Your task to perform on an android device: Open CNN.com Image 0: 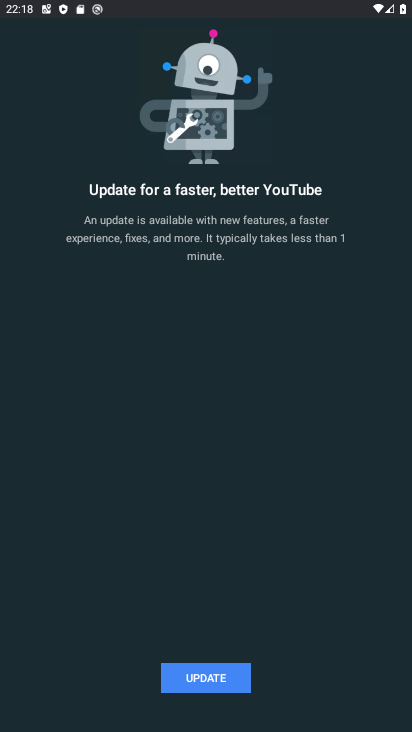
Step 0: press home button
Your task to perform on an android device: Open CNN.com Image 1: 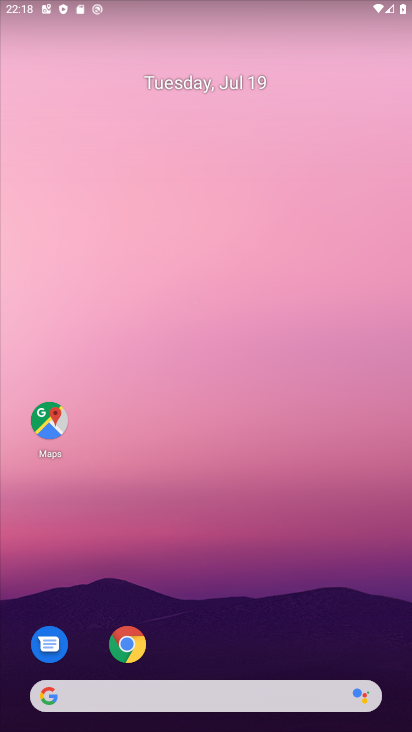
Step 1: click (126, 646)
Your task to perform on an android device: Open CNN.com Image 2: 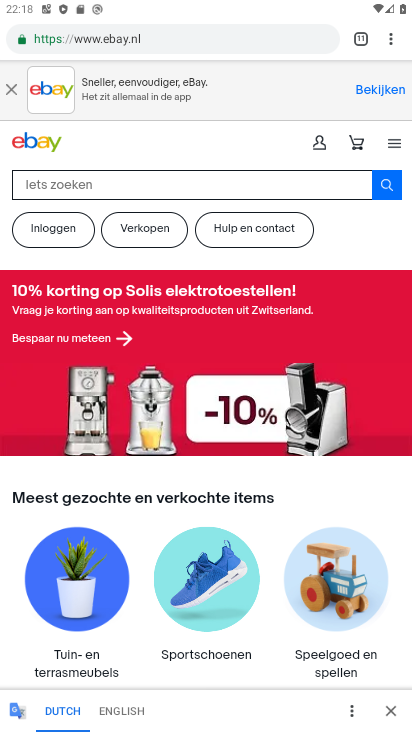
Step 2: click (392, 40)
Your task to perform on an android device: Open CNN.com Image 3: 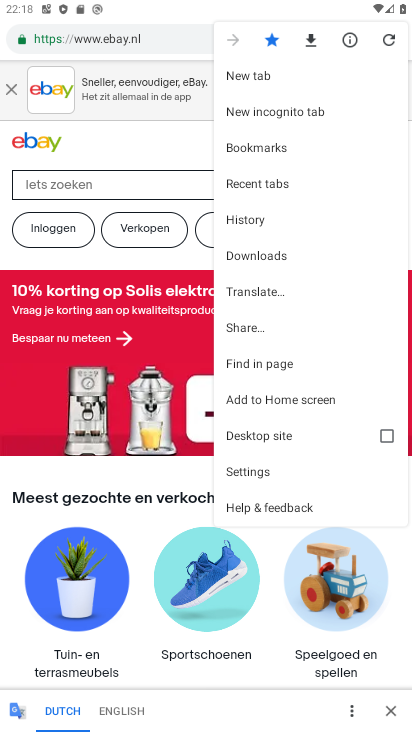
Step 3: click (241, 75)
Your task to perform on an android device: Open CNN.com Image 4: 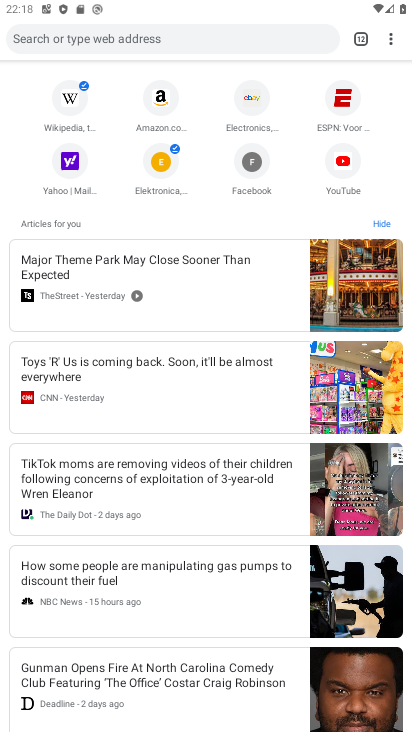
Step 4: click (185, 41)
Your task to perform on an android device: Open CNN.com Image 5: 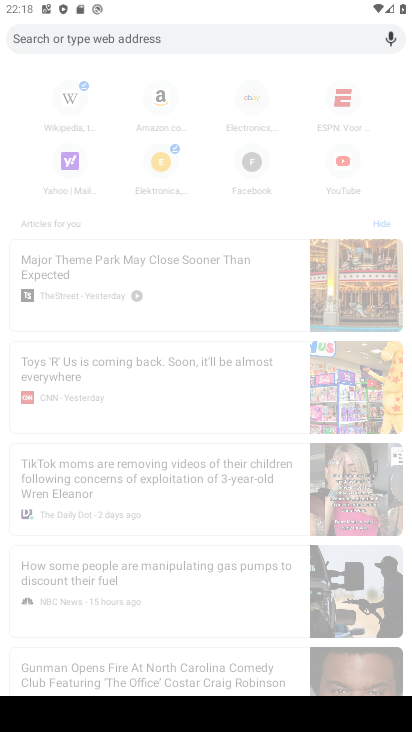
Step 5: type "CNN.com"
Your task to perform on an android device: Open CNN.com Image 6: 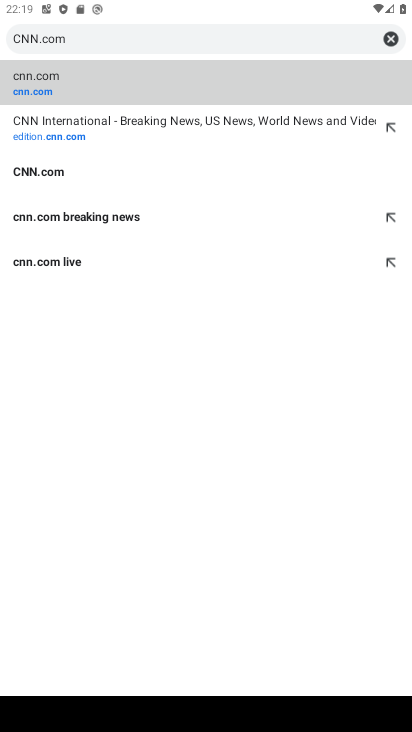
Step 6: click (52, 88)
Your task to perform on an android device: Open CNN.com Image 7: 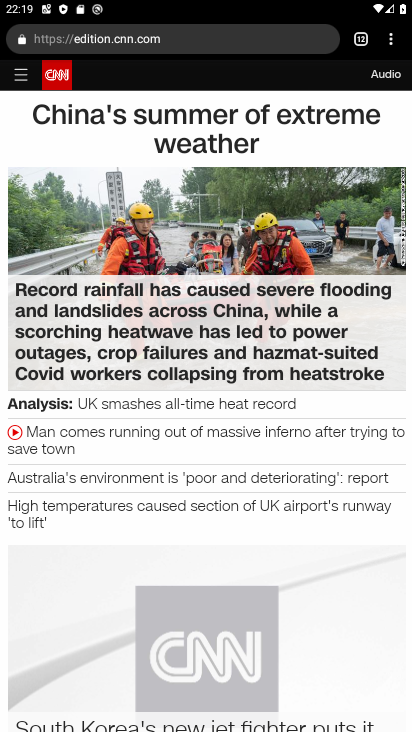
Step 7: task complete